Your task to perform on an android device: Toggle the flashlight Image 0: 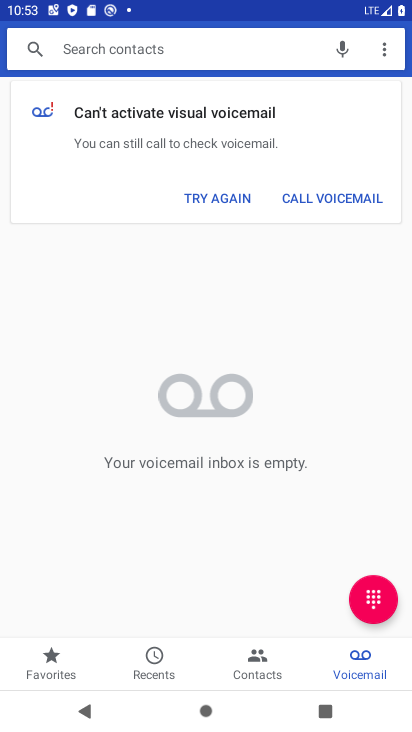
Step 0: press home button
Your task to perform on an android device: Toggle the flashlight Image 1: 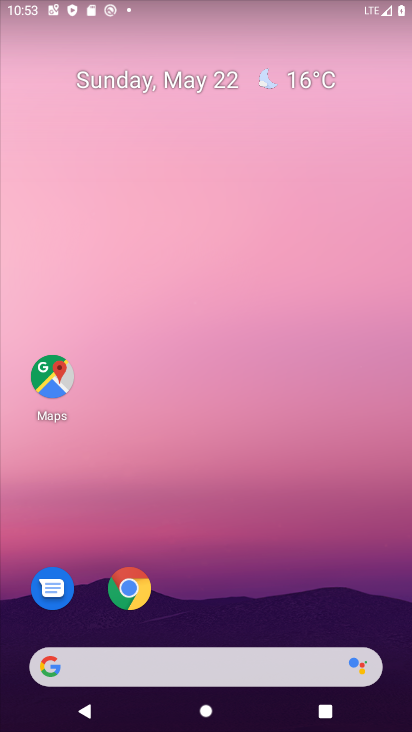
Step 1: drag from (209, 609) to (208, 242)
Your task to perform on an android device: Toggle the flashlight Image 2: 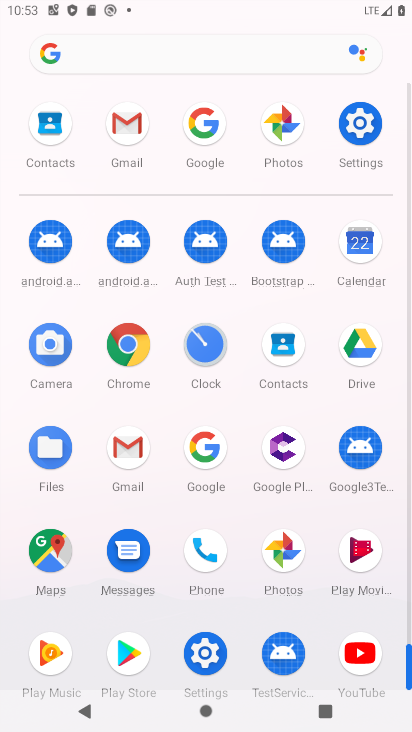
Step 2: click (355, 128)
Your task to perform on an android device: Toggle the flashlight Image 3: 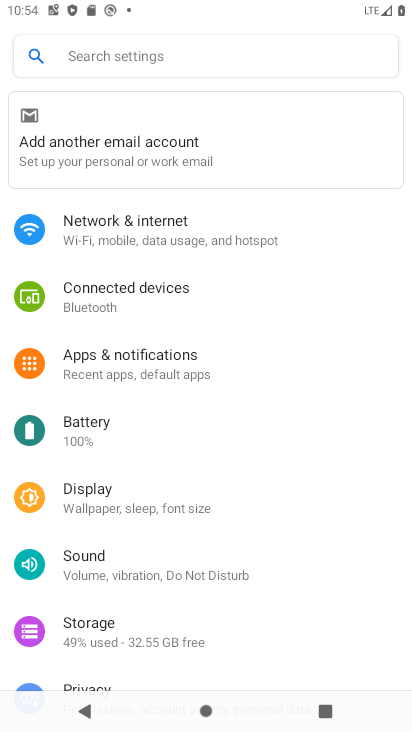
Step 3: task complete